Your task to perform on an android device: Search for logitech g903 on costco, select the first entry, add it to the cart, then select checkout. Image 0: 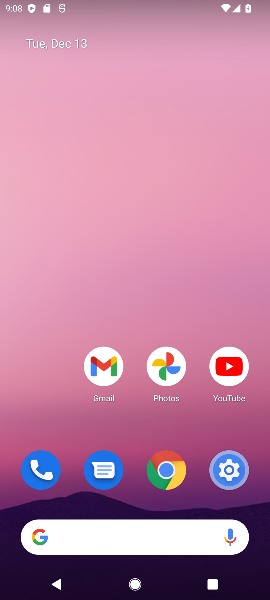
Step 0: press home button
Your task to perform on an android device: Search for logitech g903 on costco, select the first entry, add it to the cart, then select checkout. Image 1: 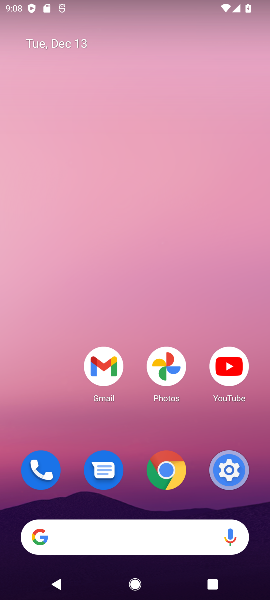
Step 1: click (62, 537)
Your task to perform on an android device: Search for logitech g903 on costco, select the first entry, add it to the cart, then select checkout. Image 2: 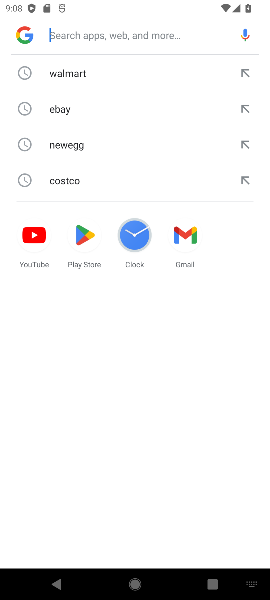
Step 2: type "costco"
Your task to perform on an android device: Search for logitech g903 on costco, select the first entry, add it to the cart, then select checkout. Image 3: 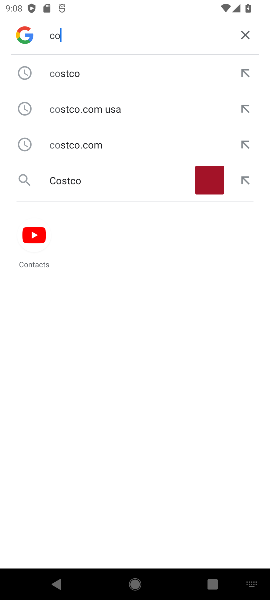
Step 3: press enter
Your task to perform on an android device: Search for logitech g903 on costco, select the first entry, add it to the cart, then select checkout. Image 4: 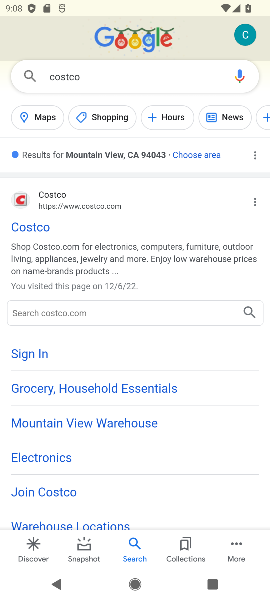
Step 4: click (27, 226)
Your task to perform on an android device: Search for logitech g903 on costco, select the first entry, add it to the cart, then select checkout. Image 5: 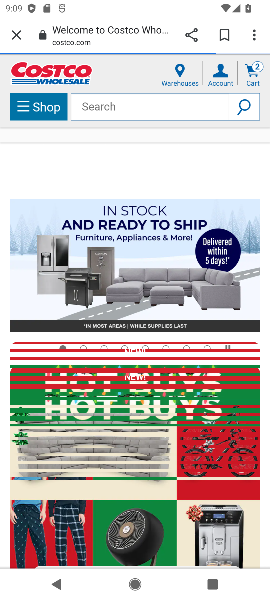
Step 5: click (98, 101)
Your task to perform on an android device: Search for logitech g903 on costco, select the first entry, add it to the cart, then select checkout. Image 6: 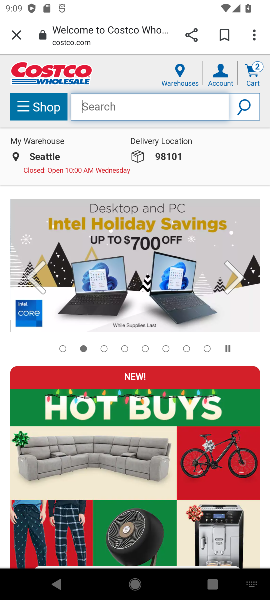
Step 6: type "logitech g903"
Your task to perform on an android device: Search for logitech g903 on costco, select the first entry, add it to the cart, then select checkout. Image 7: 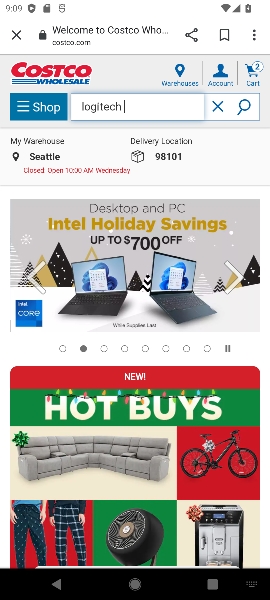
Step 7: press enter
Your task to perform on an android device: Search for logitech g903 on costco, select the first entry, add it to the cart, then select checkout. Image 8: 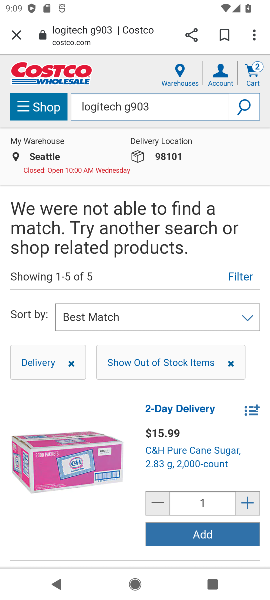
Step 8: task complete